Your task to perform on an android device: manage bookmarks in the chrome app Image 0: 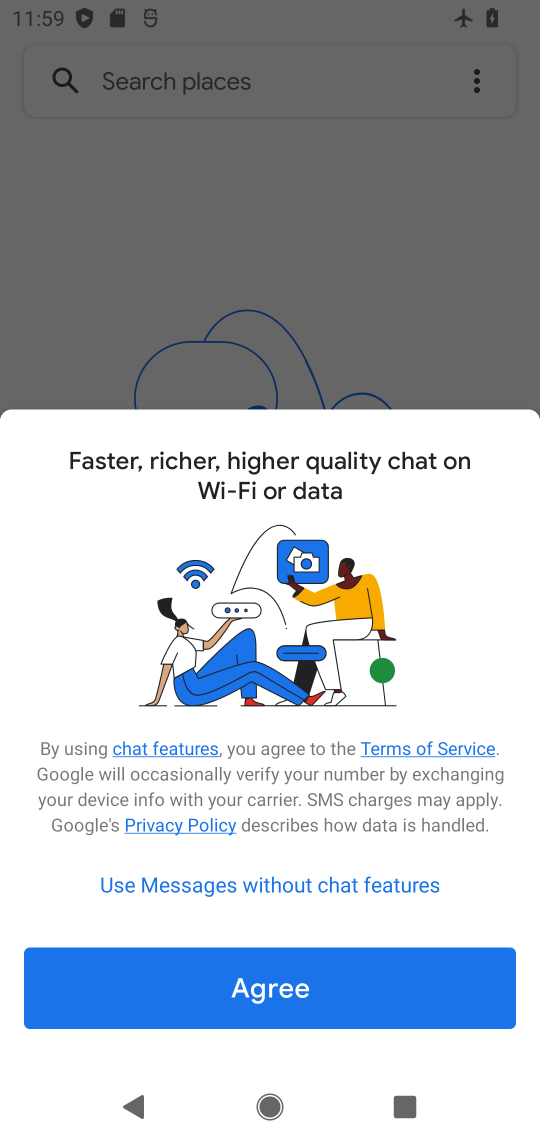
Step 0: press home button
Your task to perform on an android device: manage bookmarks in the chrome app Image 1: 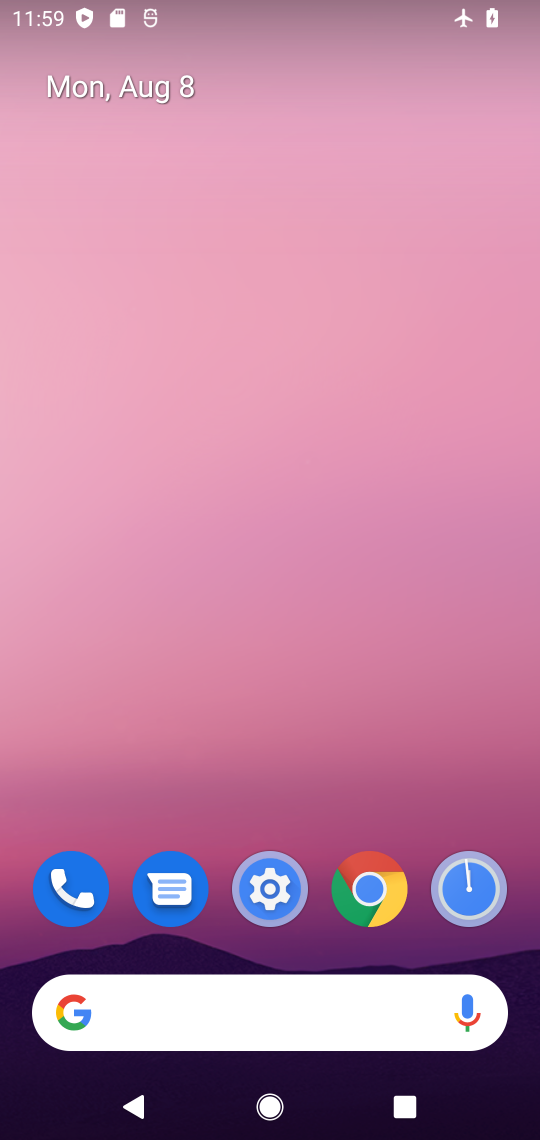
Step 1: click (367, 873)
Your task to perform on an android device: manage bookmarks in the chrome app Image 2: 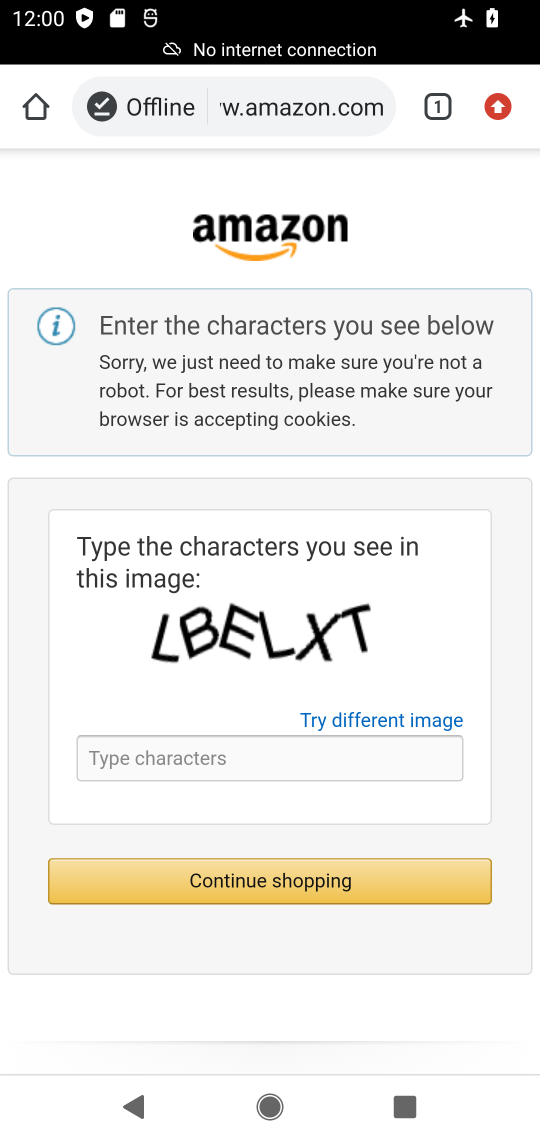
Step 2: click (366, 865)
Your task to perform on an android device: manage bookmarks in the chrome app Image 3: 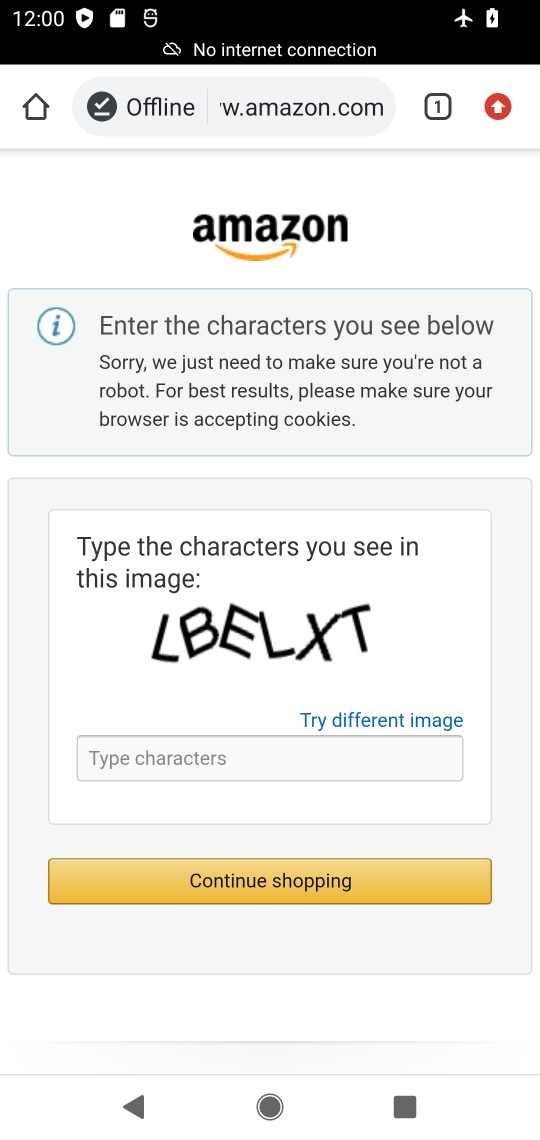
Step 3: click (504, 102)
Your task to perform on an android device: manage bookmarks in the chrome app Image 4: 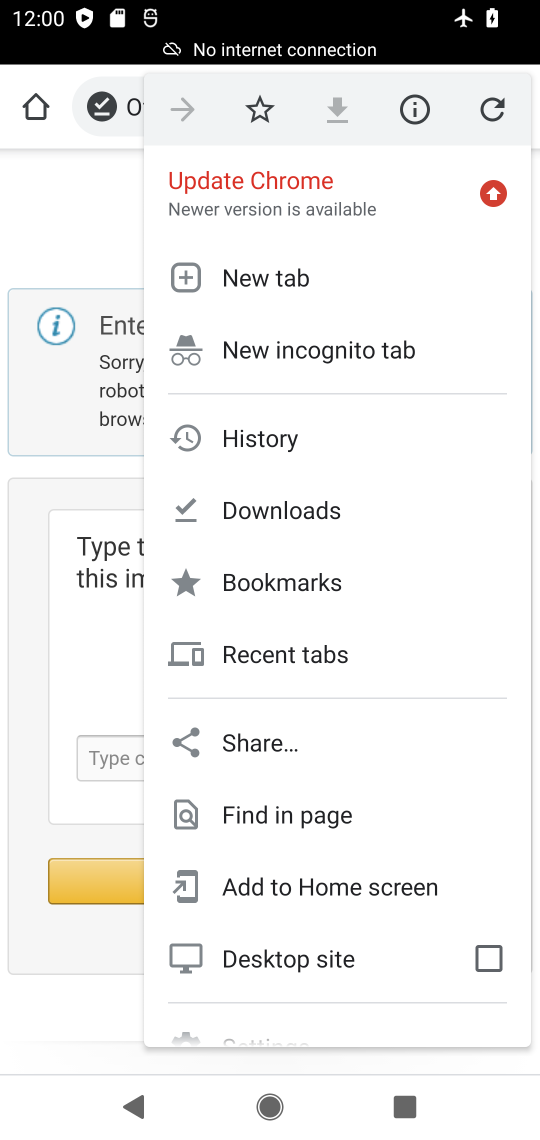
Step 4: click (284, 573)
Your task to perform on an android device: manage bookmarks in the chrome app Image 5: 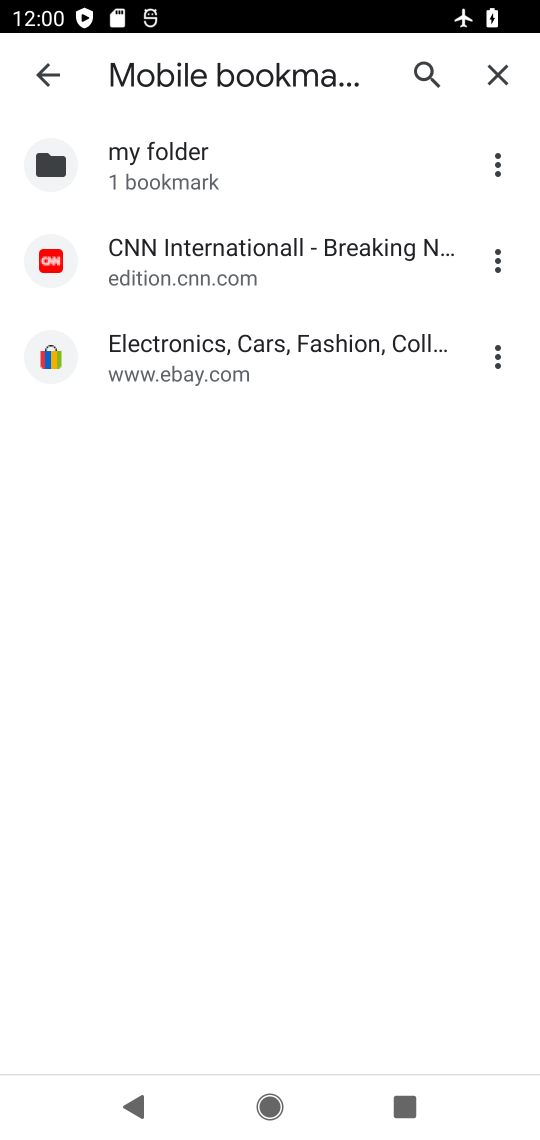
Step 5: click (54, 363)
Your task to perform on an android device: manage bookmarks in the chrome app Image 6: 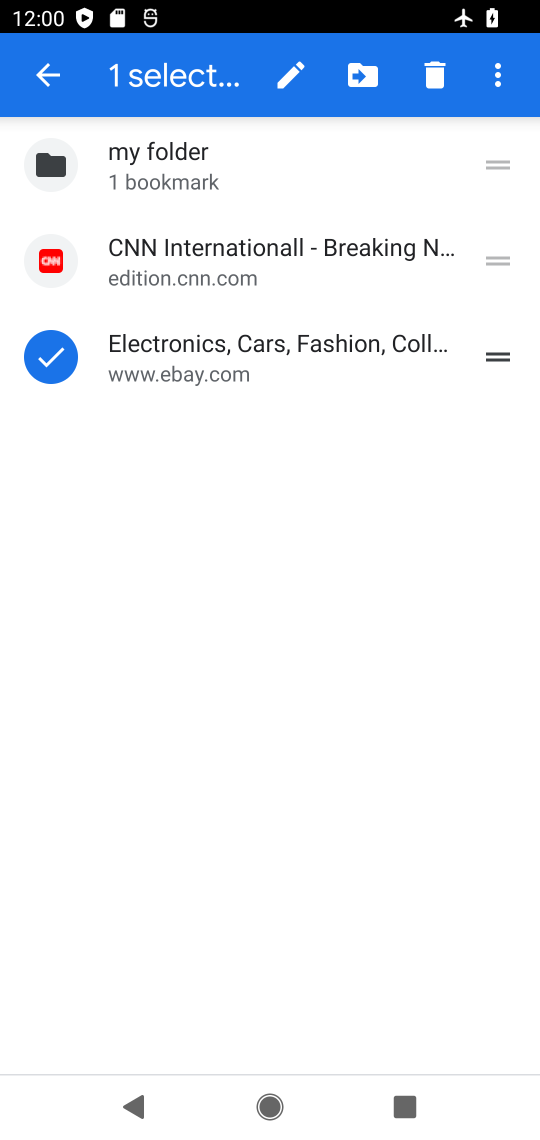
Step 6: click (50, 264)
Your task to perform on an android device: manage bookmarks in the chrome app Image 7: 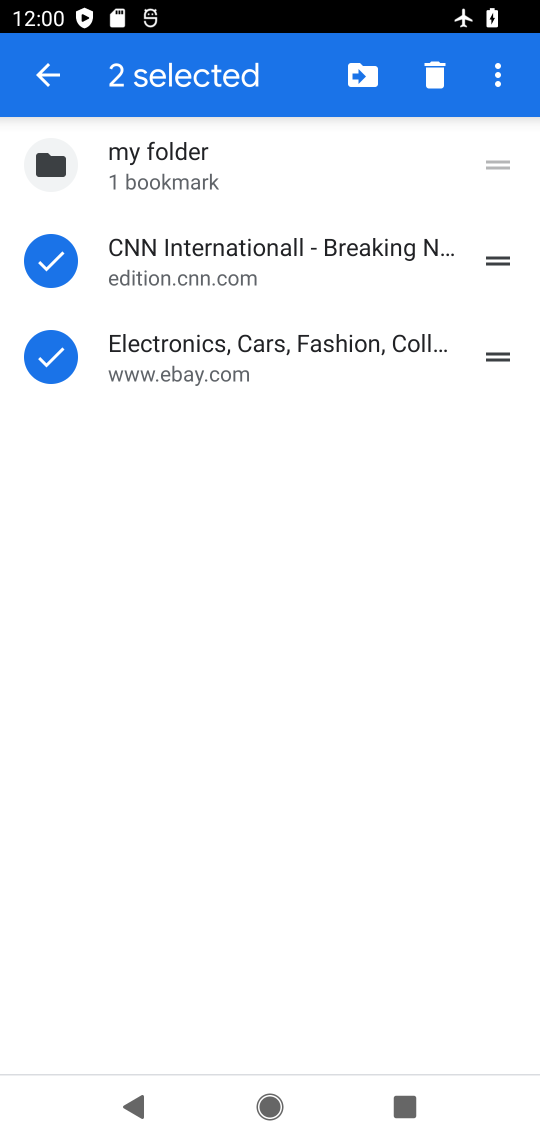
Step 7: click (495, 81)
Your task to perform on an android device: manage bookmarks in the chrome app Image 8: 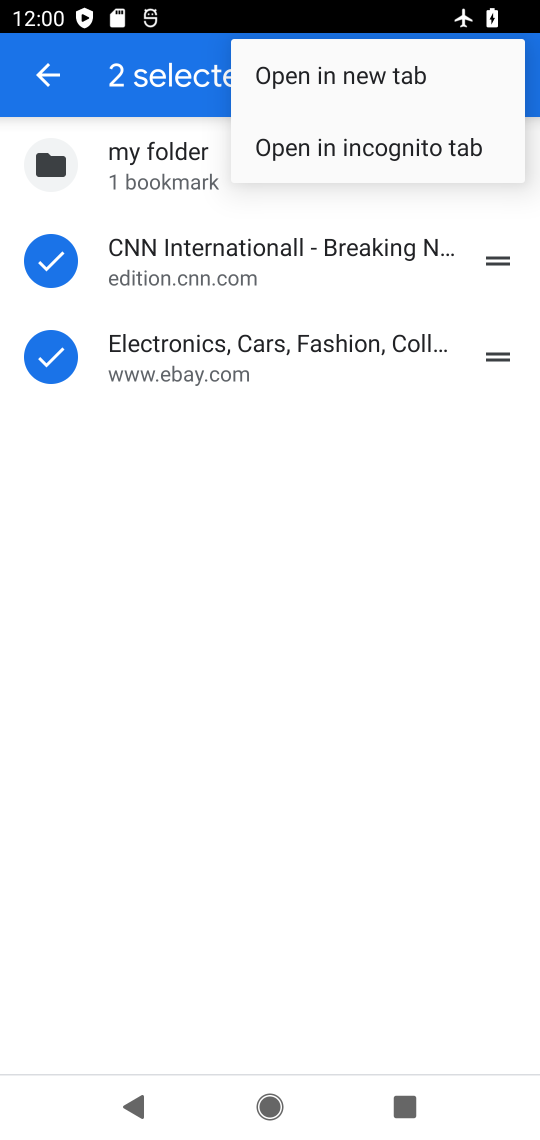
Step 8: click (409, 414)
Your task to perform on an android device: manage bookmarks in the chrome app Image 9: 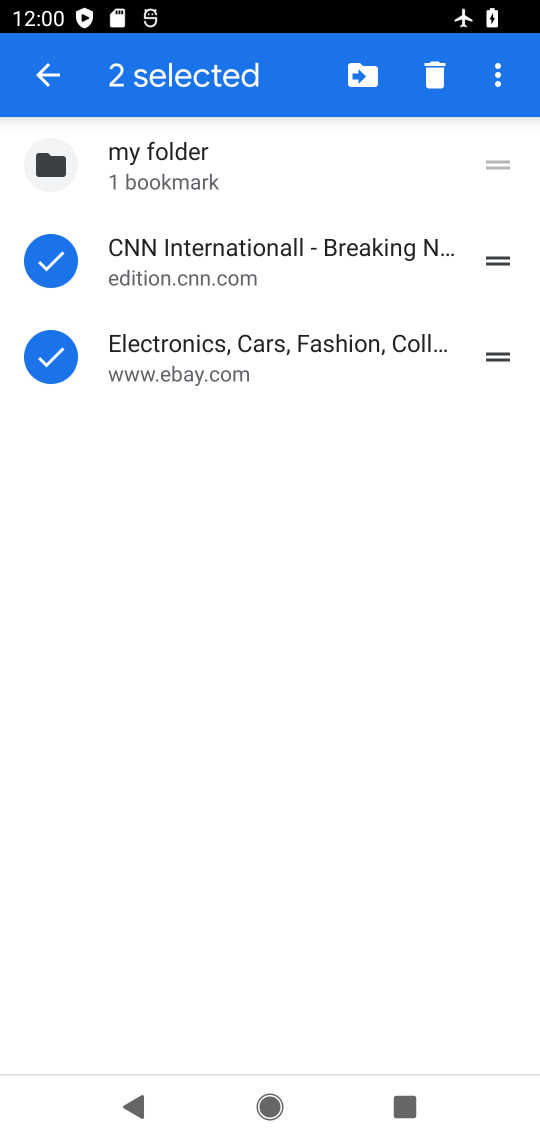
Step 9: click (430, 72)
Your task to perform on an android device: manage bookmarks in the chrome app Image 10: 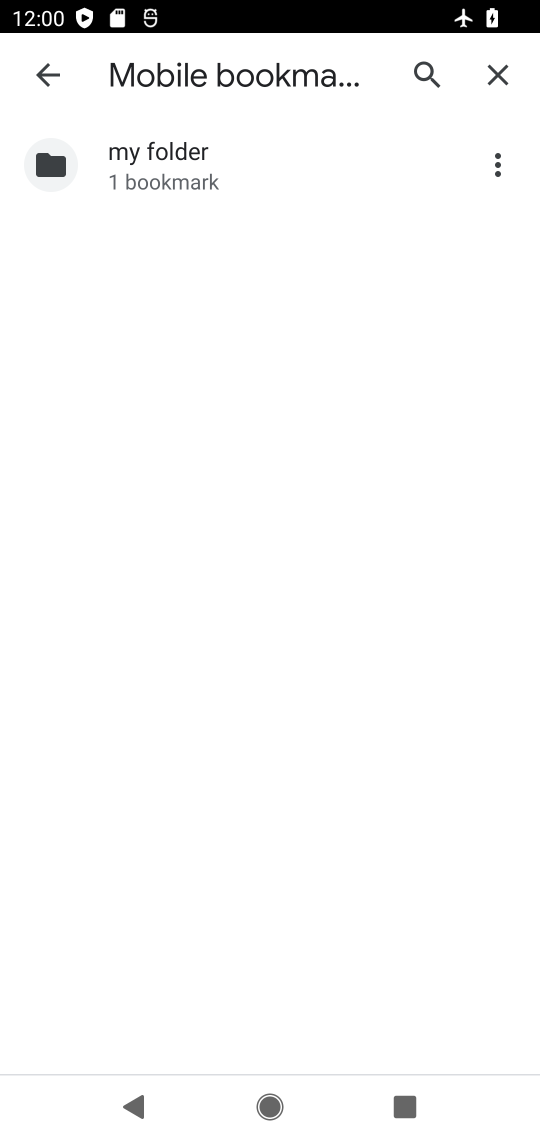
Step 10: task complete